Your task to perform on an android device: check the backup settings in the google photos Image 0: 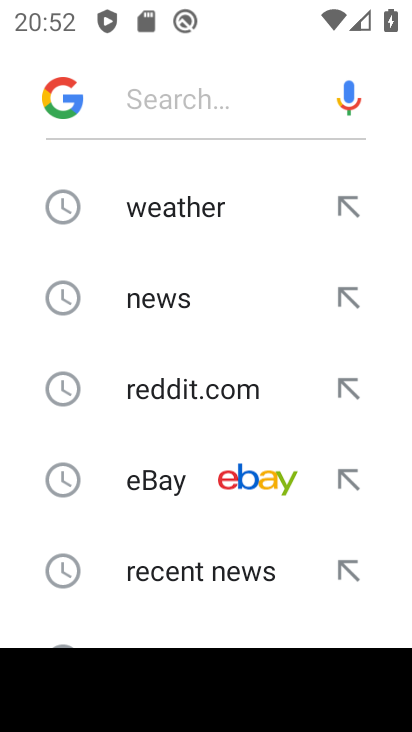
Step 0: press back button
Your task to perform on an android device: check the backup settings in the google photos Image 1: 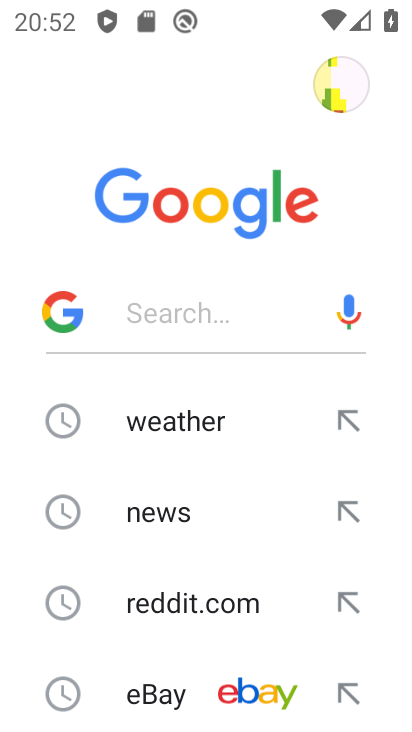
Step 1: press back button
Your task to perform on an android device: check the backup settings in the google photos Image 2: 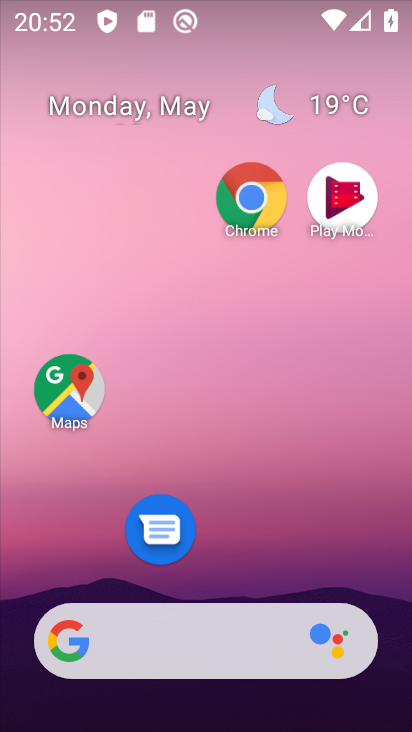
Step 2: drag from (262, 500) to (326, 0)
Your task to perform on an android device: check the backup settings in the google photos Image 3: 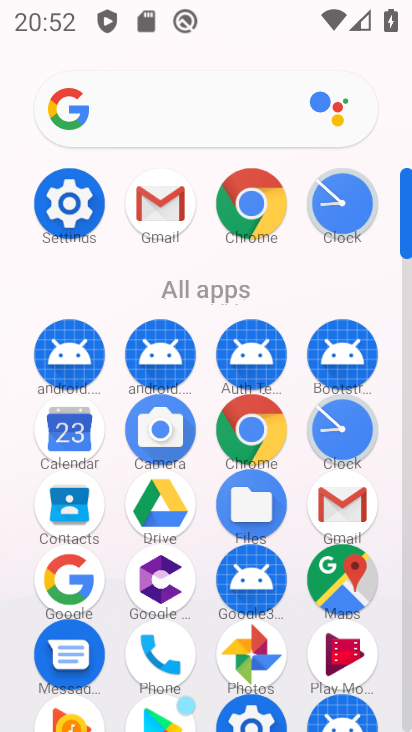
Step 3: click (254, 654)
Your task to perform on an android device: check the backup settings in the google photos Image 4: 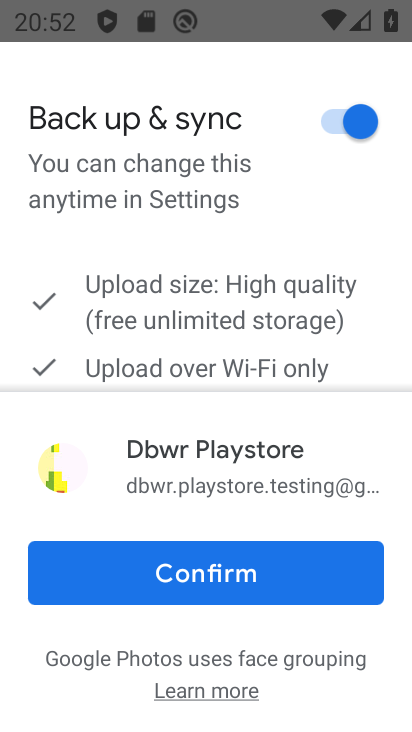
Step 4: click (204, 586)
Your task to perform on an android device: check the backup settings in the google photos Image 5: 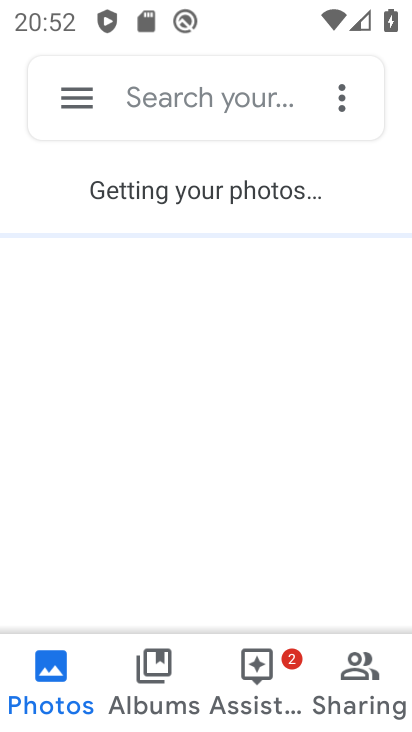
Step 5: click (71, 101)
Your task to perform on an android device: check the backup settings in the google photos Image 6: 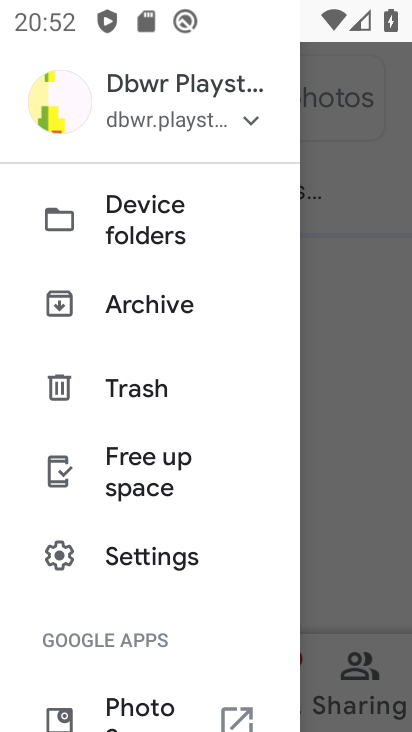
Step 6: click (176, 118)
Your task to perform on an android device: check the backup settings in the google photos Image 7: 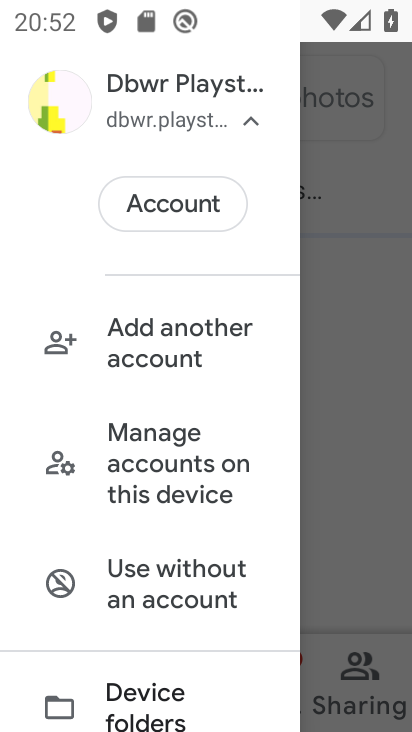
Step 7: drag from (158, 689) to (169, 322)
Your task to perform on an android device: check the backup settings in the google photos Image 8: 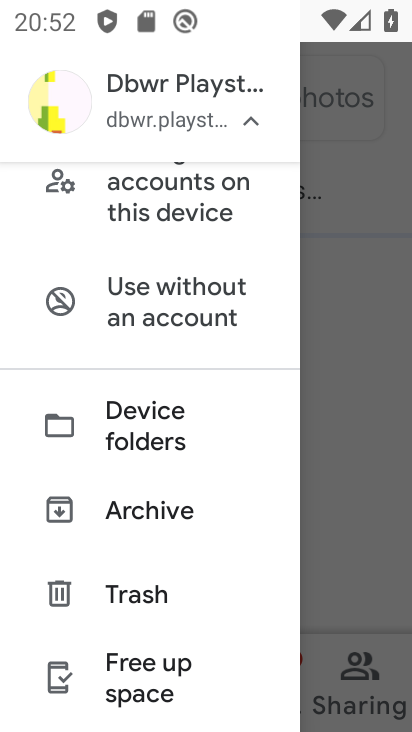
Step 8: drag from (180, 633) to (174, 295)
Your task to perform on an android device: check the backup settings in the google photos Image 9: 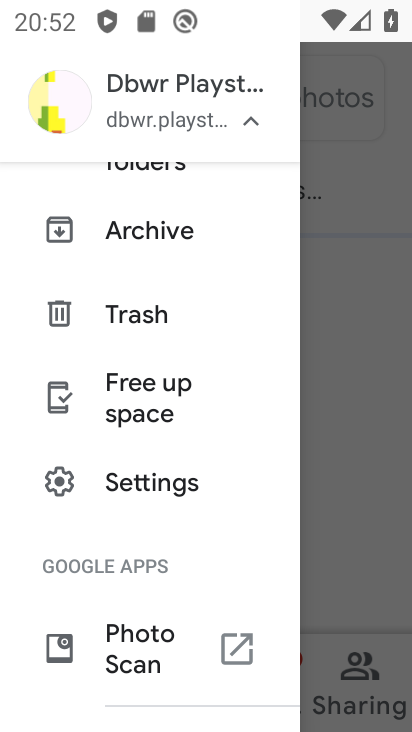
Step 9: click (144, 489)
Your task to perform on an android device: check the backup settings in the google photos Image 10: 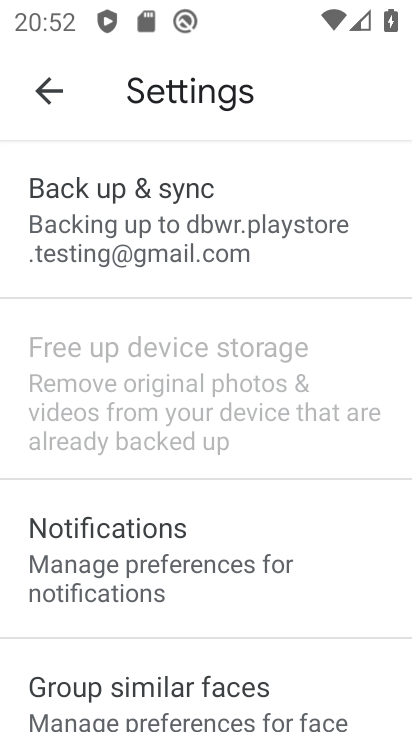
Step 10: click (176, 208)
Your task to perform on an android device: check the backup settings in the google photos Image 11: 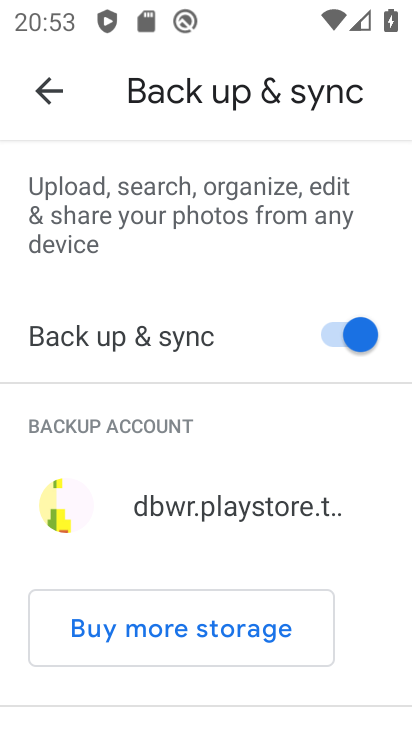
Step 11: task complete